Your task to perform on an android device: Clear the cart on target. Image 0: 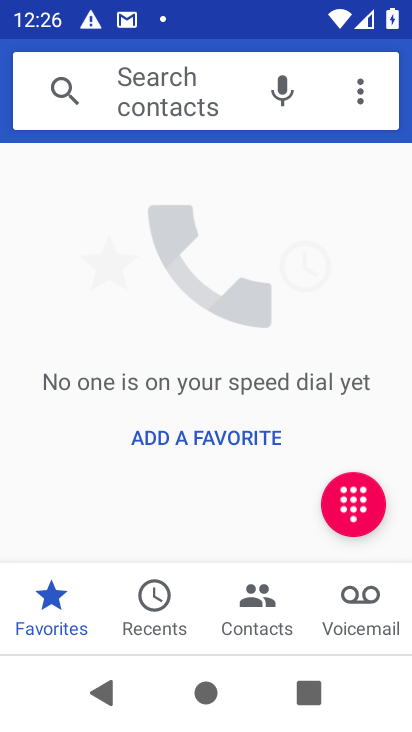
Step 0: press home button
Your task to perform on an android device: Clear the cart on target. Image 1: 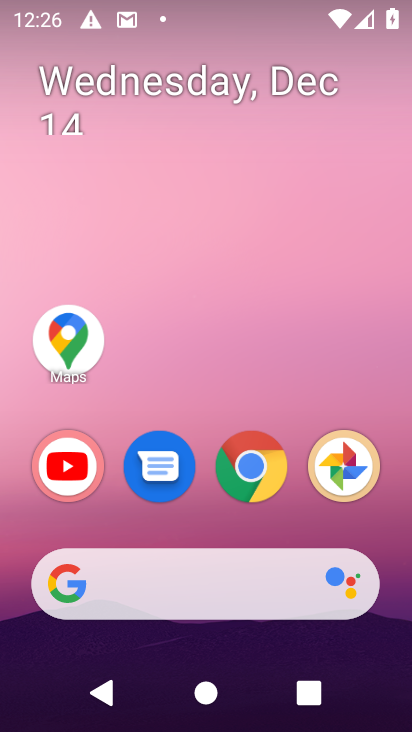
Step 1: click (216, 590)
Your task to perform on an android device: Clear the cart on target. Image 2: 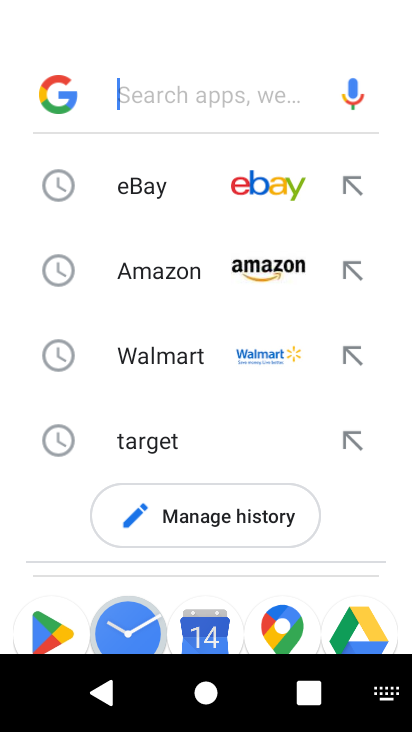
Step 2: click (147, 435)
Your task to perform on an android device: Clear the cart on target. Image 3: 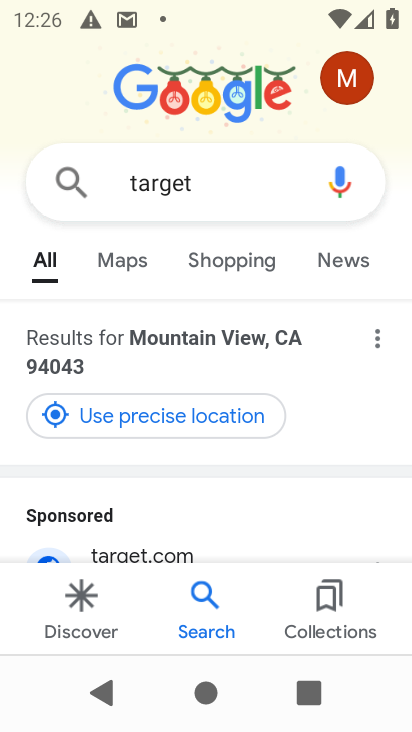
Step 3: drag from (201, 487) to (224, 10)
Your task to perform on an android device: Clear the cart on target. Image 4: 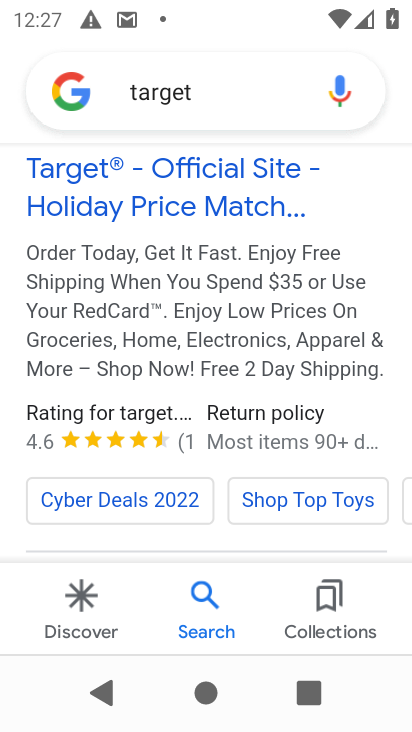
Step 4: click (217, 365)
Your task to perform on an android device: Clear the cart on target. Image 5: 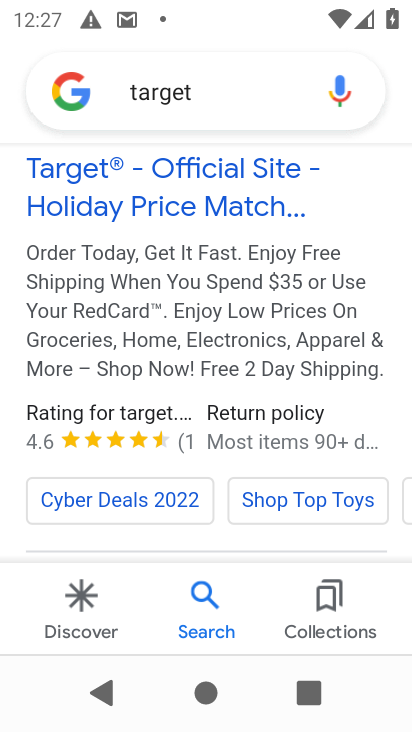
Step 5: drag from (167, 339) to (167, 115)
Your task to perform on an android device: Clear the cart on target. Image 6: 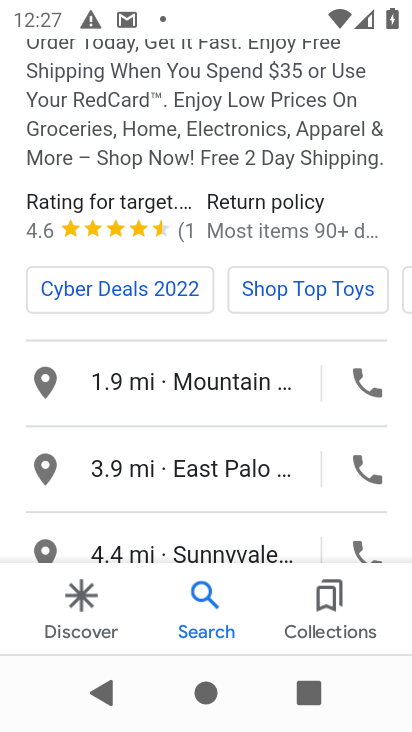
Step 6: drag from (257, 350) to (289, 232)
Your task to perform on an android device: Clear the cart on target. Image 7: 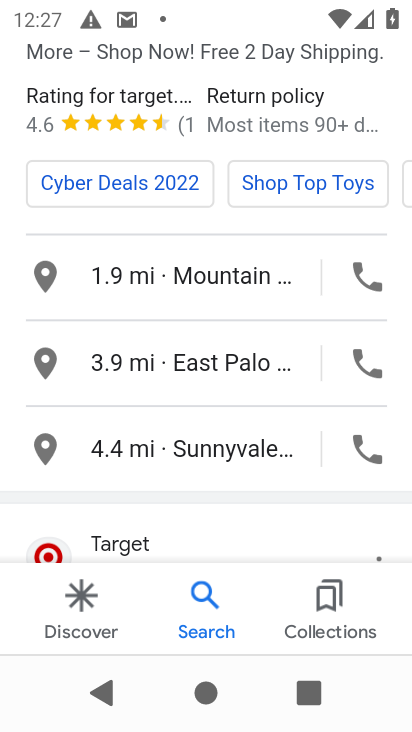
Step 7: click (117, 540)
Your task to perform on an android device: Clear the cart on target. Image 8: 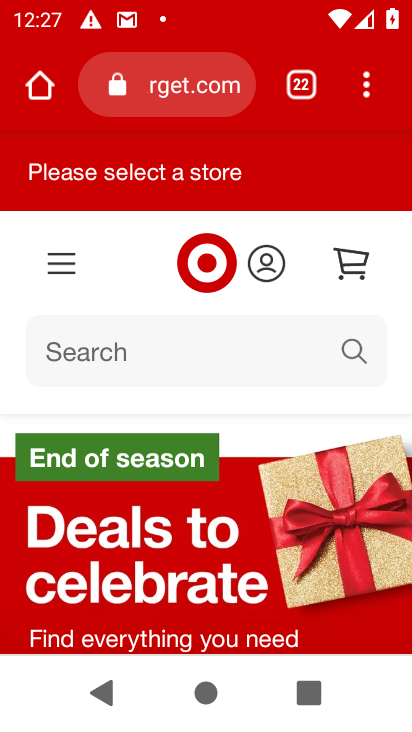
Step 8: click (347, 262)
Your task to perform on an android device: Clear the cart on target. Image 9: 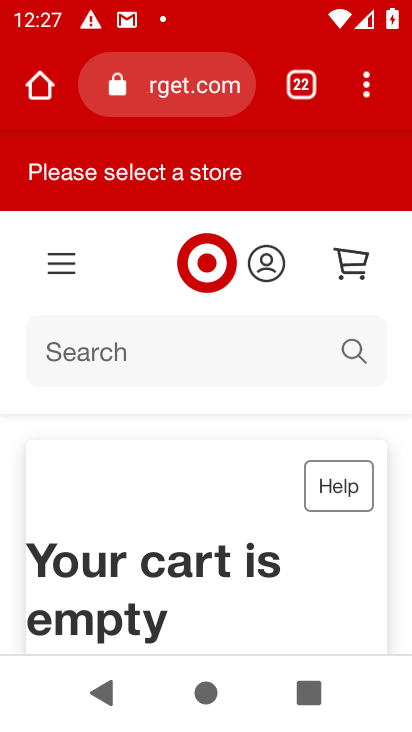
Step 9: task complete